Your task to perform on an android device: turn on wifi Image 0: 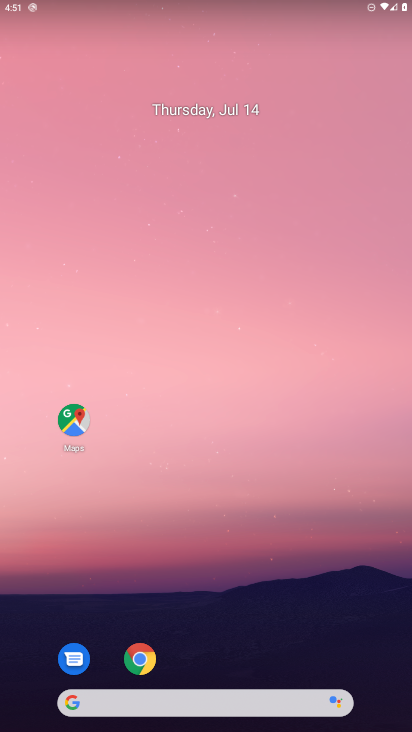
Step 0: press home button
Your task to perform on an android device: turn on wifi Image 1: 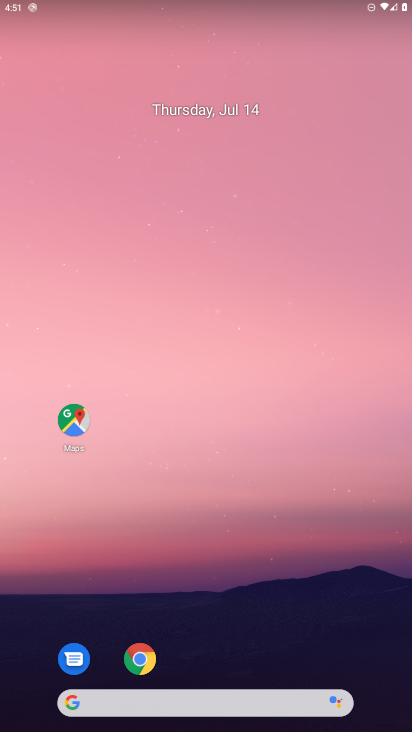
Step 1: task complete